Your task to perform on an android device: all mails in gmail Image 0: 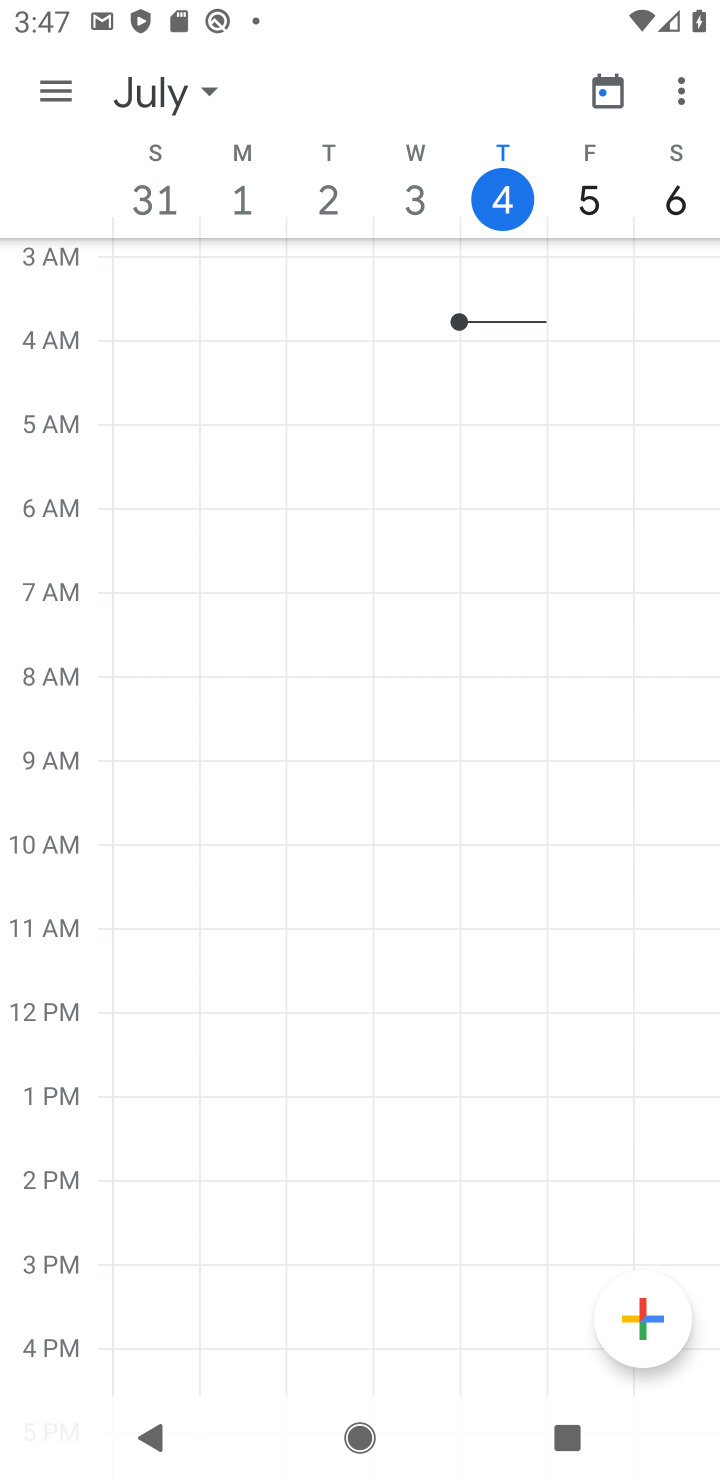
Step 0: press home button
Your task to perform on an android device: all mails in gmail Image 1: 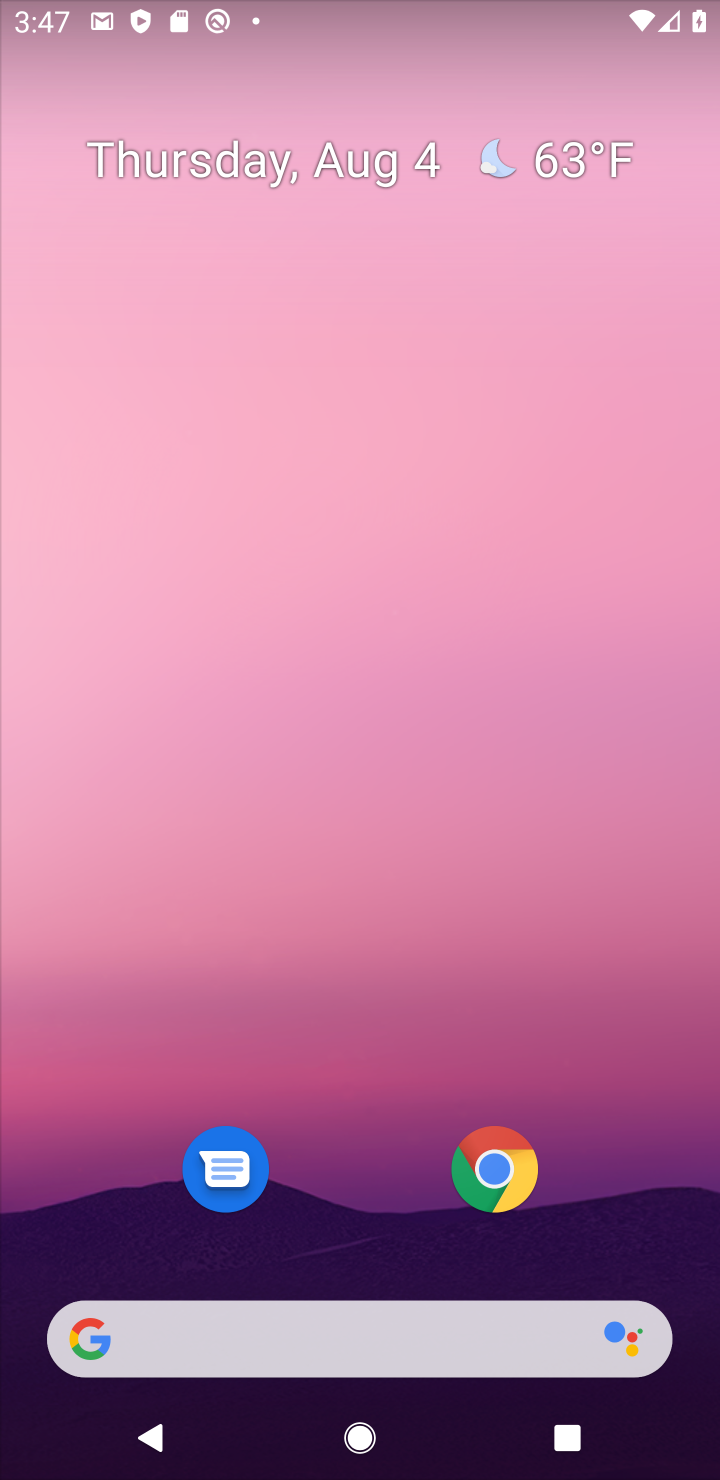
Step 1: drag from (328, 1040) to (375, 235)
Your task to perform on an android device: all mails in gmail Image 2: 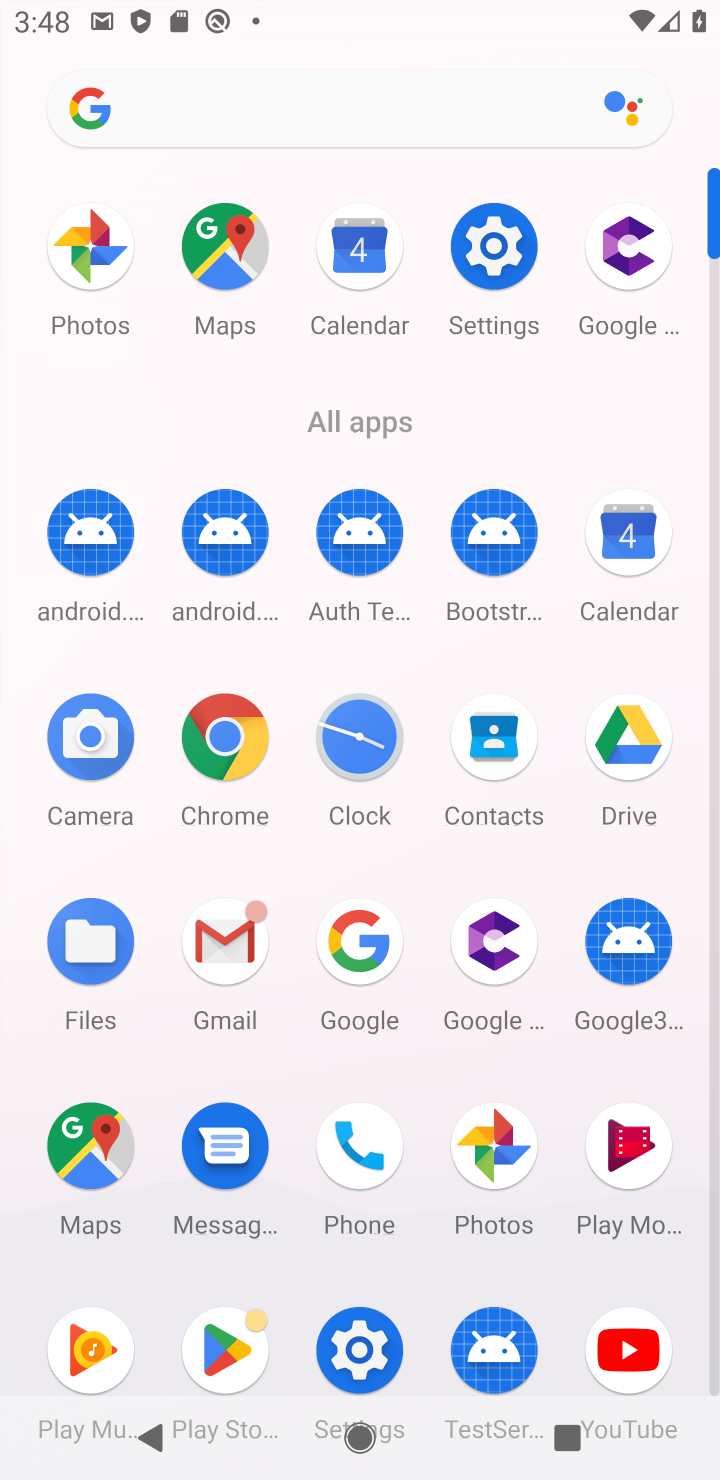
Step 2: click (233, 940)
Your task to perform on an android device: all mails in gmail Image 3: 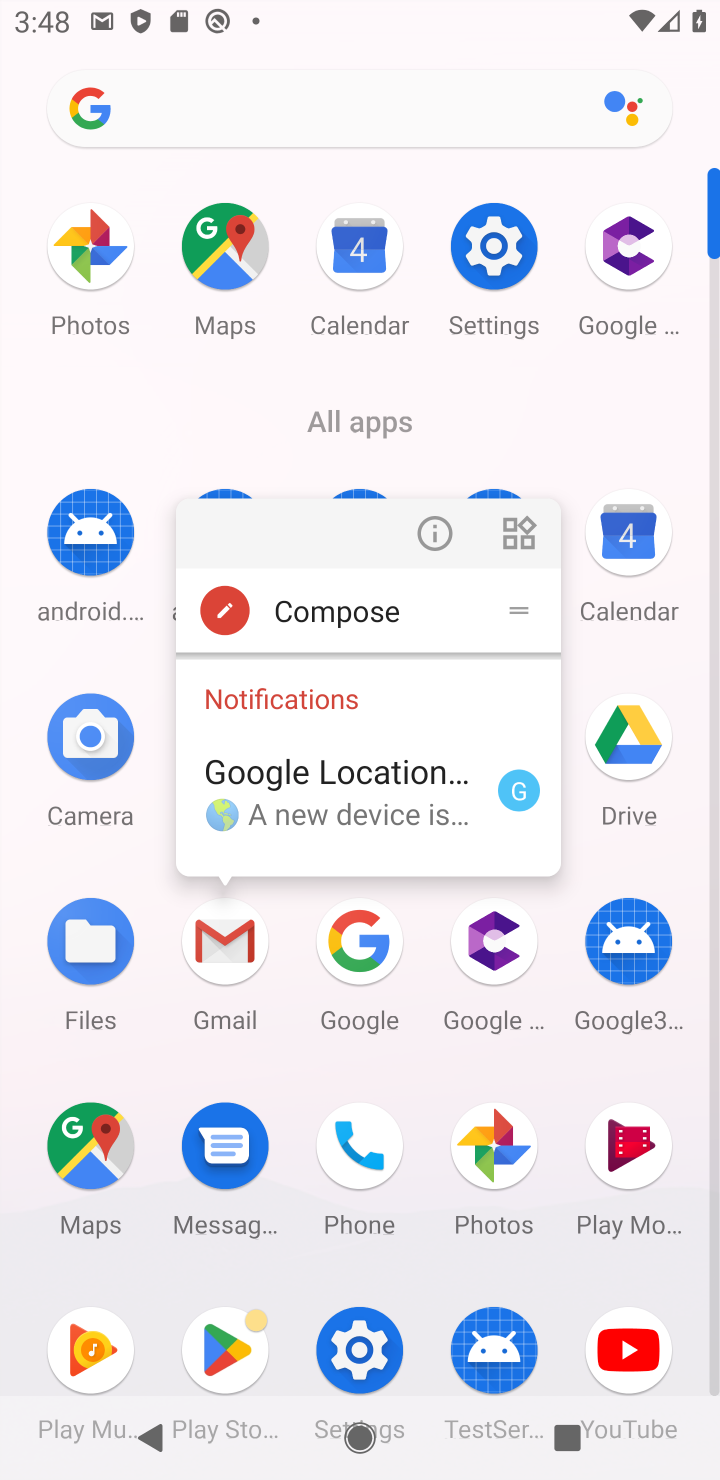
Step 3: click (237, 929)
Your task to perform on an android device: all mails in gmail Image 4: 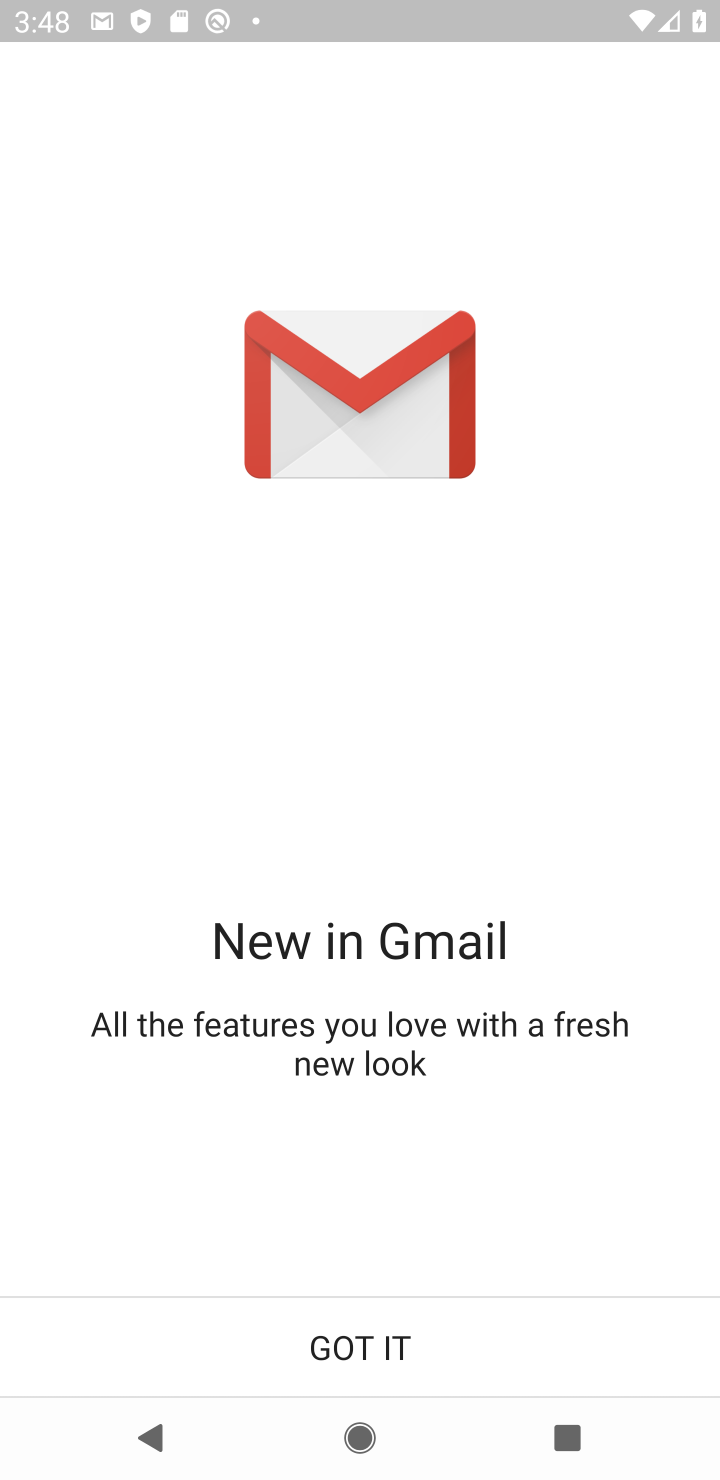
Step 4: click (237, 929)
Your task to perform on an android device: all mails in gmail Image 5: 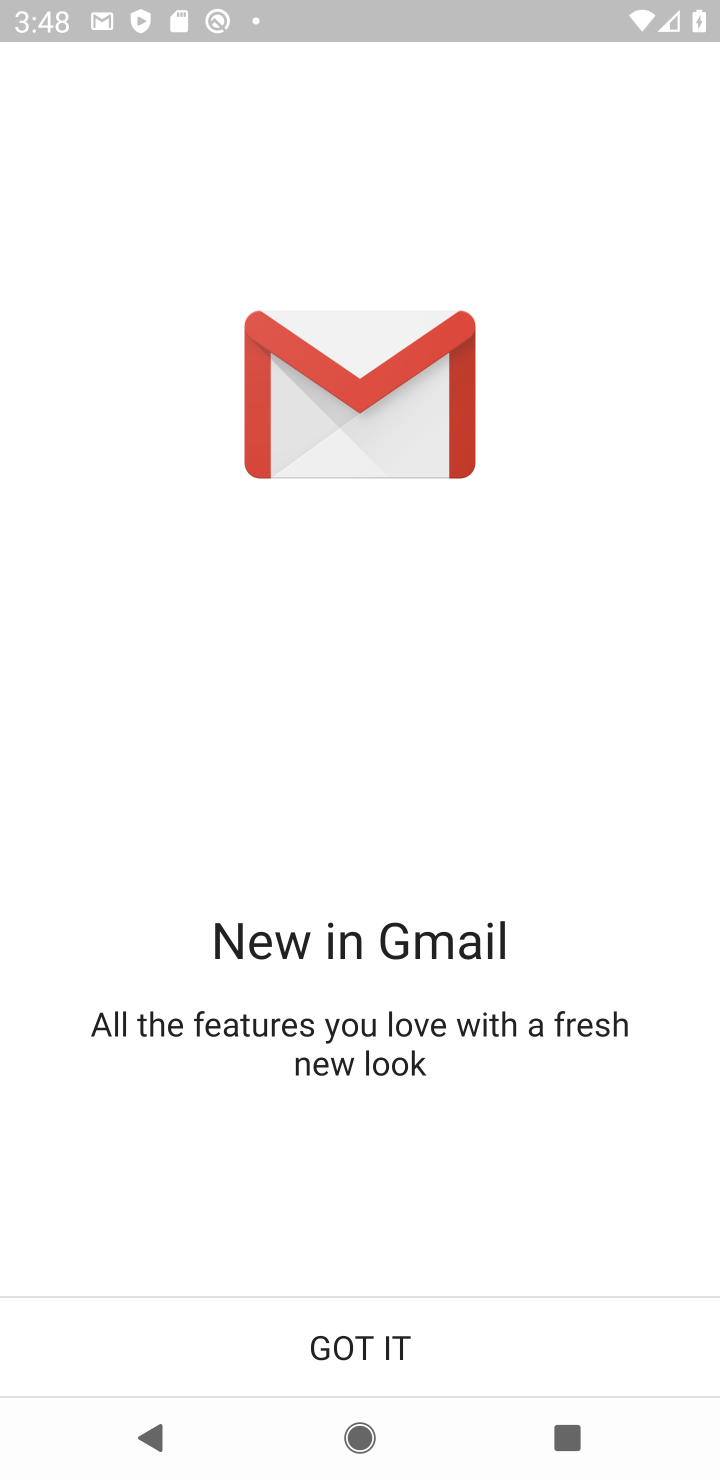
Step 5: click (443, 1361)
Your task to perform on an android device: all mails in gmail Image 6: 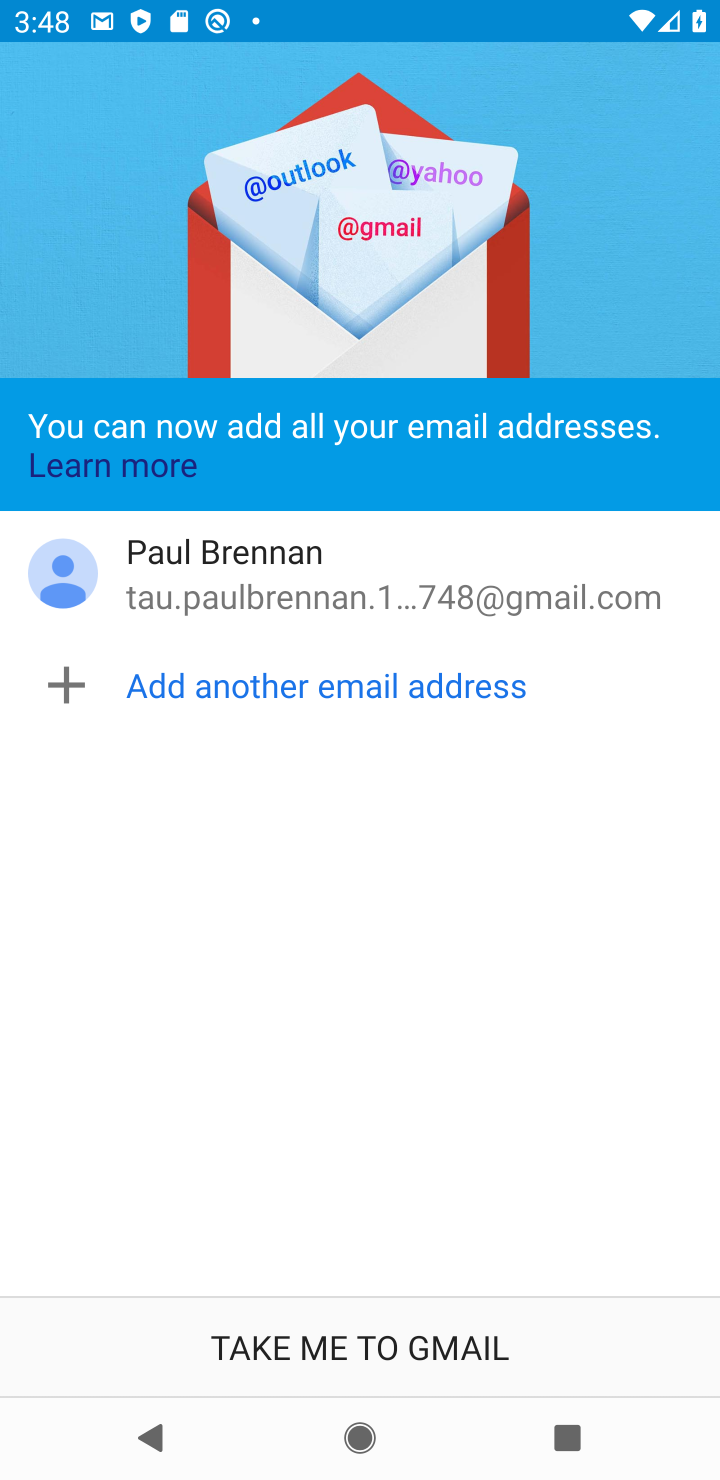
Step 6: click (429, 1355)
Your task to perform on an android device: all mails in gmail Image 7: 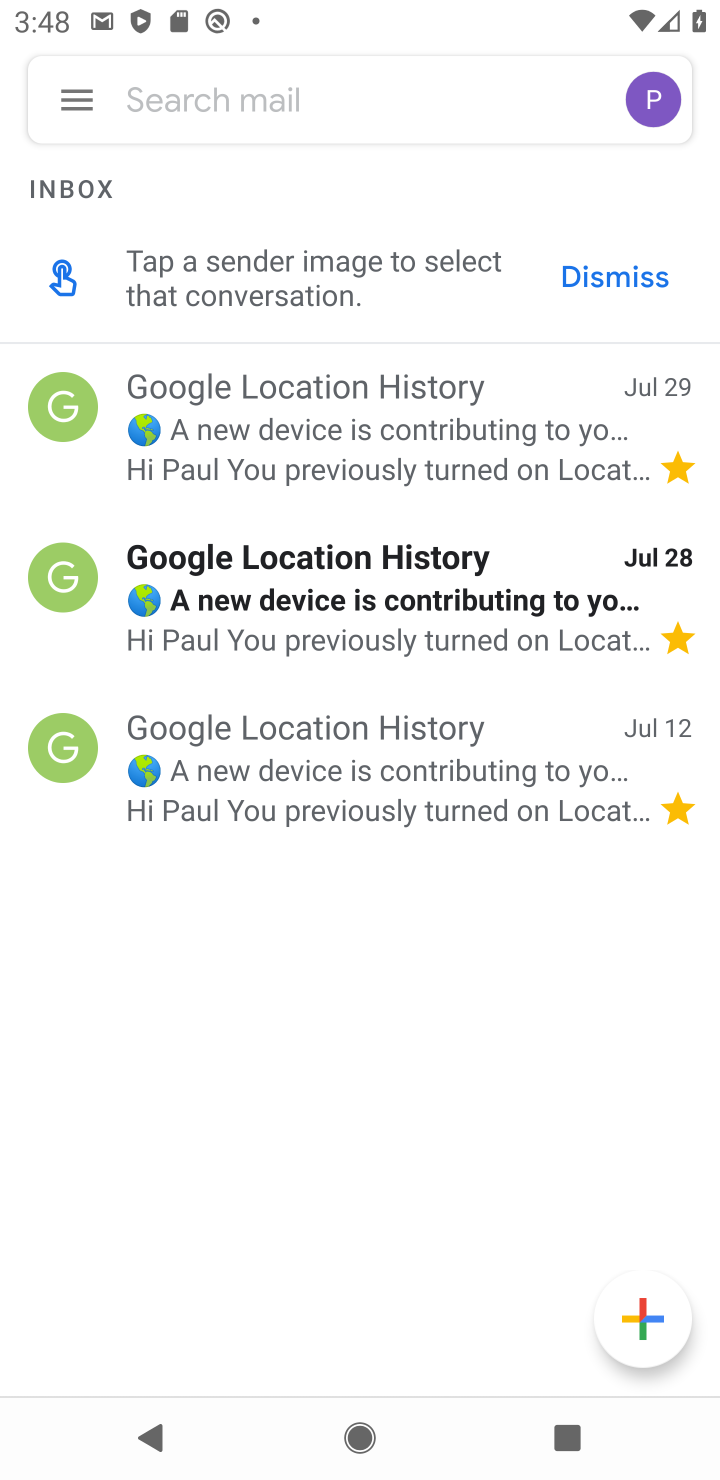
Step 7: click (73, 117)
Your task to perform on an android device: all mails in gmail Image 8: 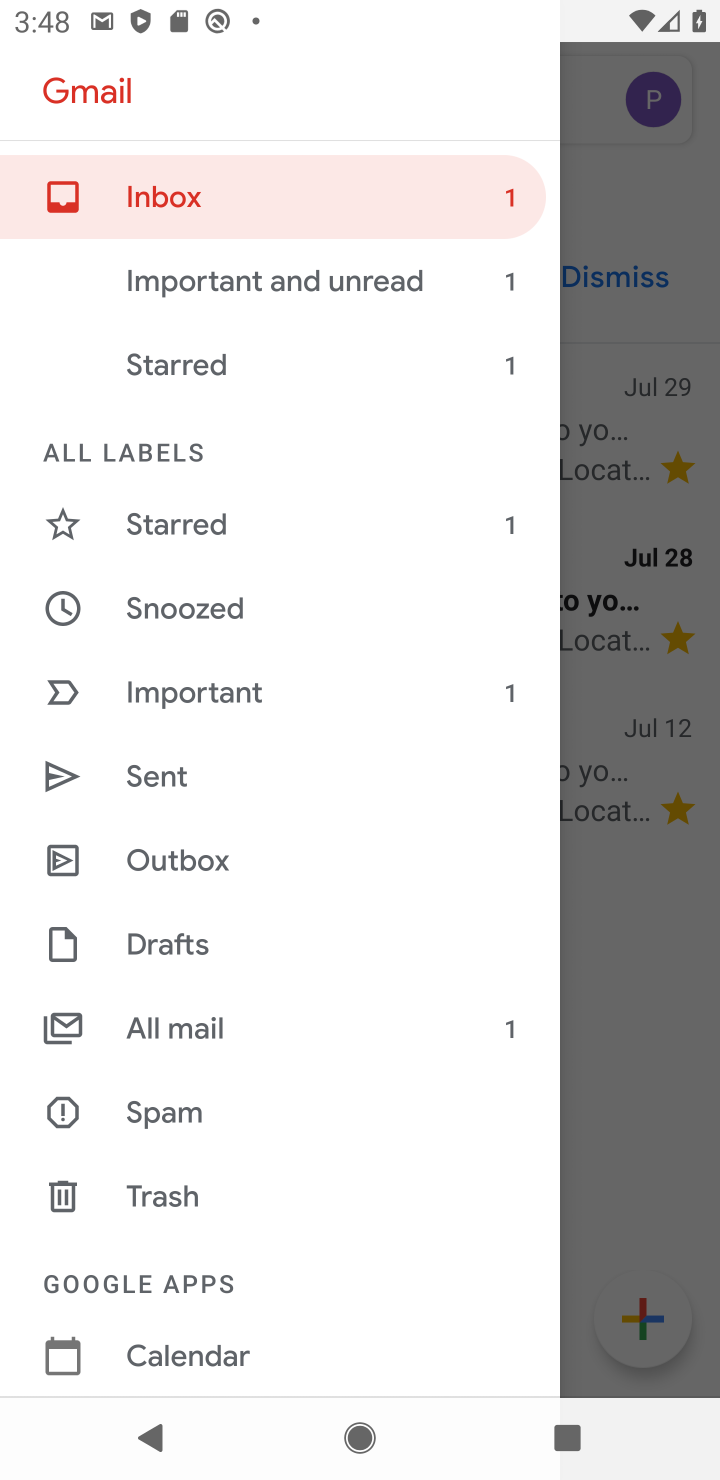
Step 8: drag from (219, 1099) to (270, 591)
Your task to perform on an android device: all mails in gmail Image 9: 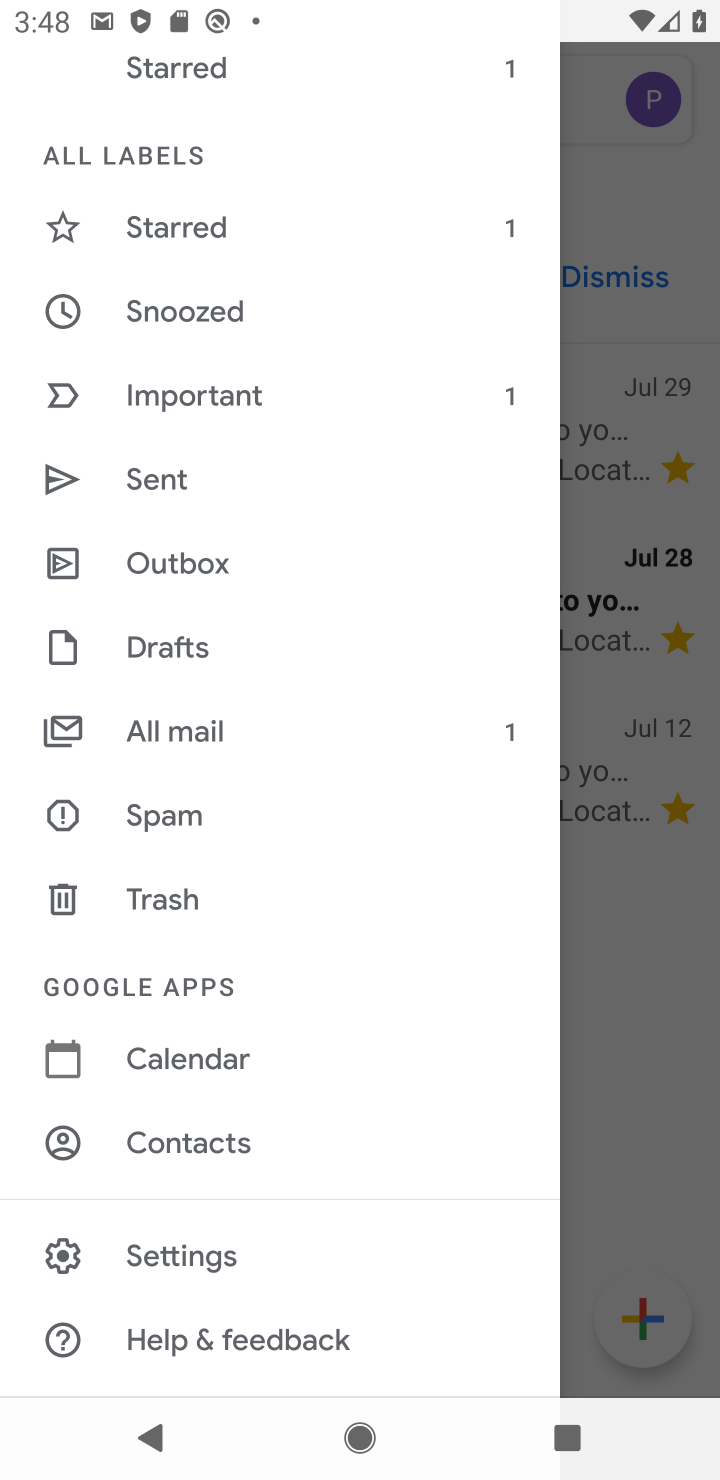
Step 9: click (165, 733)
Your task to perform on an android device: all mails in gmail Image 10: 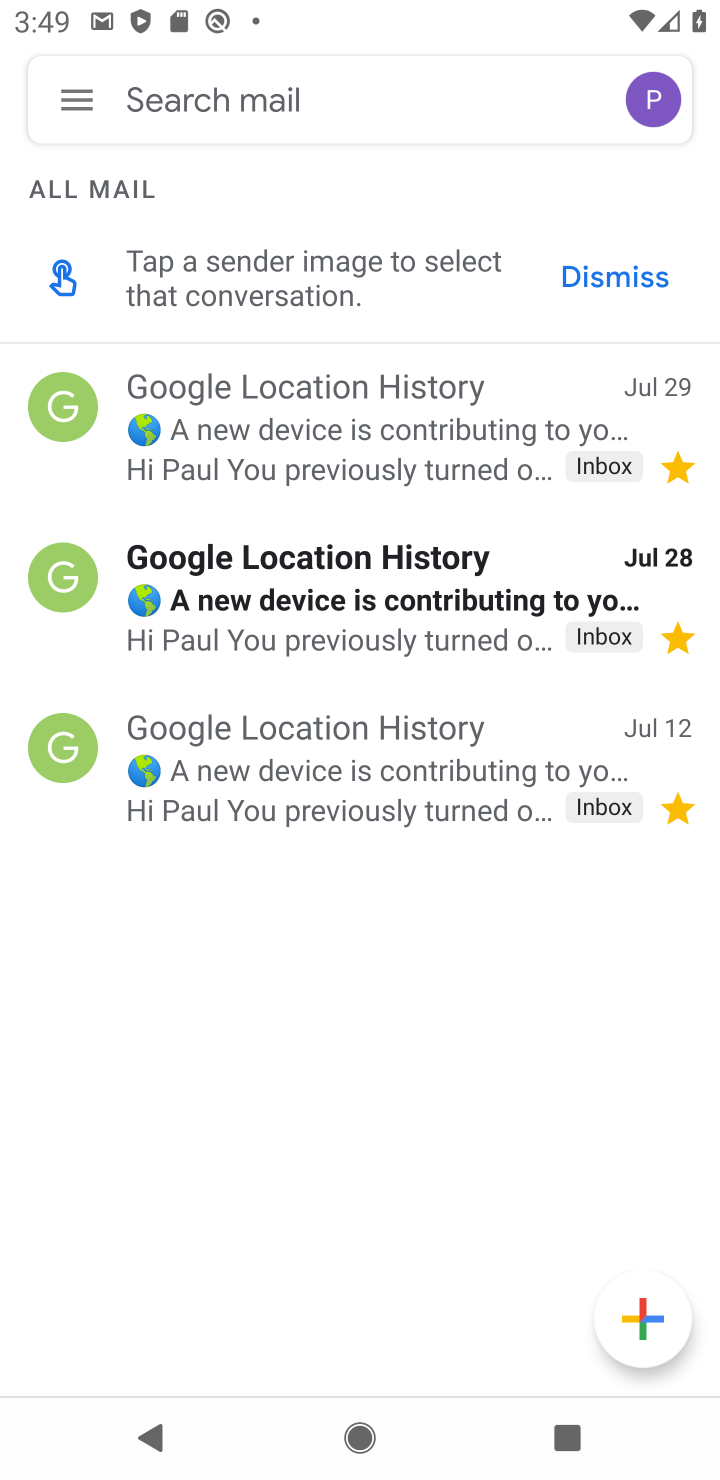
Step 10: task complete